Your task to perform on an android device: toggle translation in the chrome app Image 0: 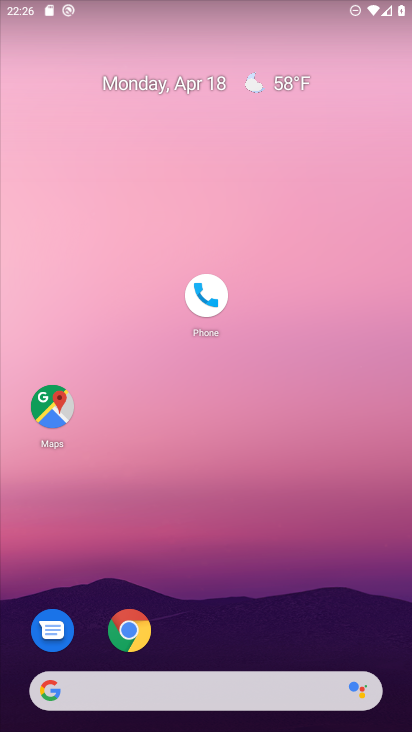
Step 0: drag from (231, 589) to (257, 200)
Your task to perform on an android device: toggle translation in the chrome app Image 1: 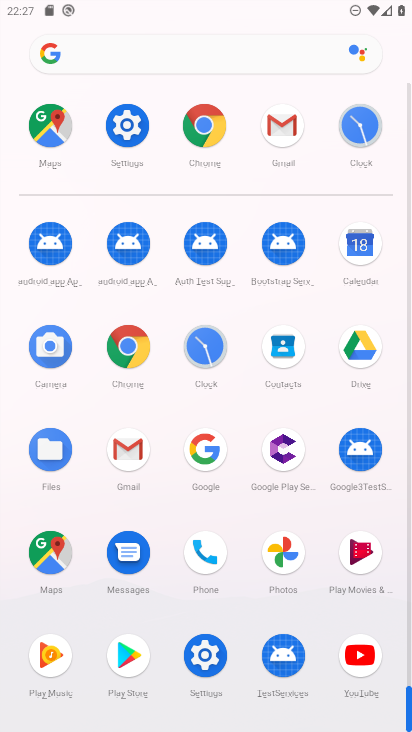
Step 1: click (137, 343)
Your task to perform on an android device: toggle translation in the chrome app Image 2: 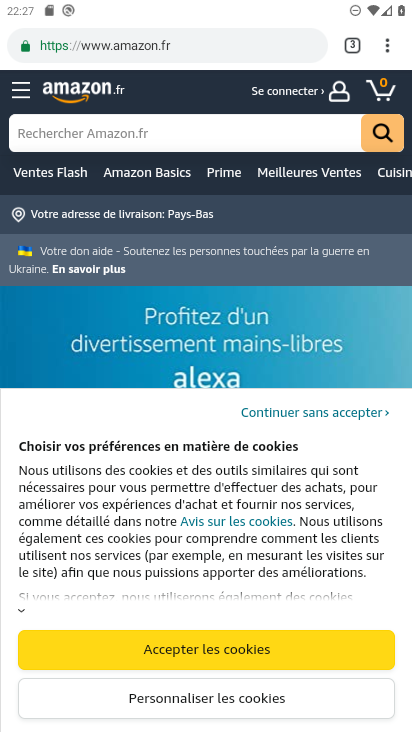
Step 2: drag from (387, 44) to (221, 604)
Your task to perform on an android device: toggle translation in the chrome app Image 3: 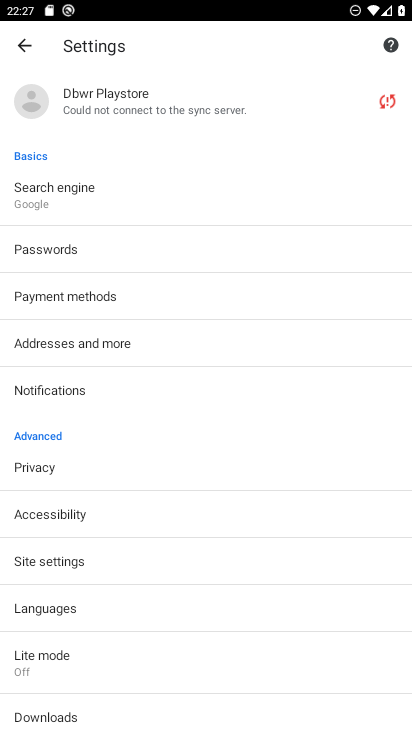
Step 3: click (57, 614)
Your task to perform on an android device: toggle translation in the chrome app Image 4: 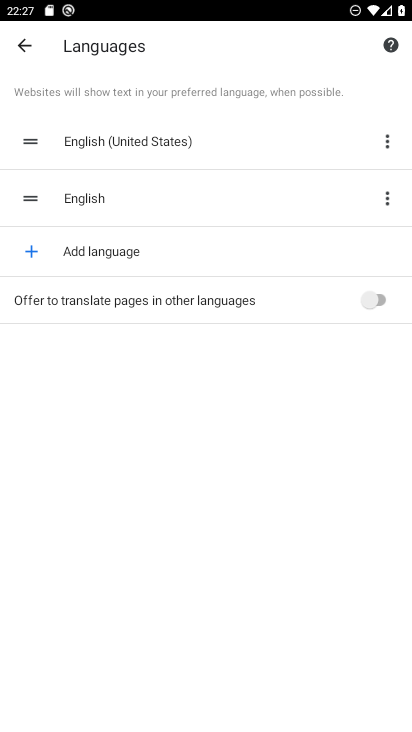
Step 4: click (297, 296)
Your task to perform on an android device: toggle translation in the chrome app Image 5: 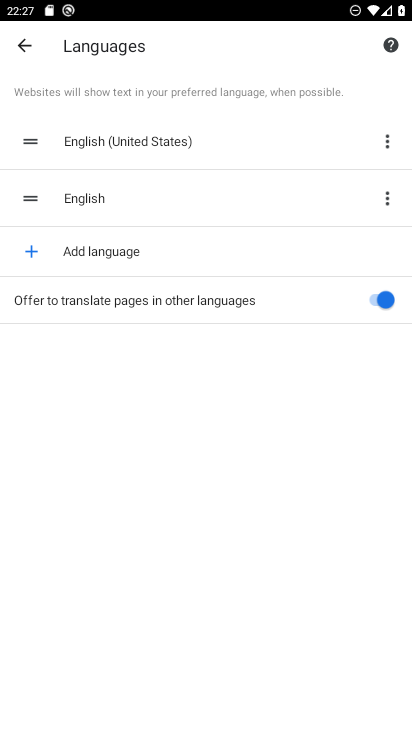
Step 5: task complete